Your task to perform on an android device: empty trash in the gmail app Image 0: 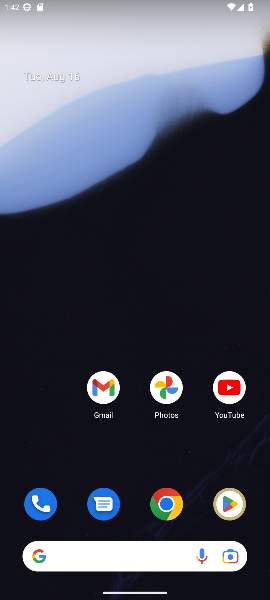
Step 0: click (102, 390)
Your task to perform on an android device: empty trash in the gmail app Image 1: 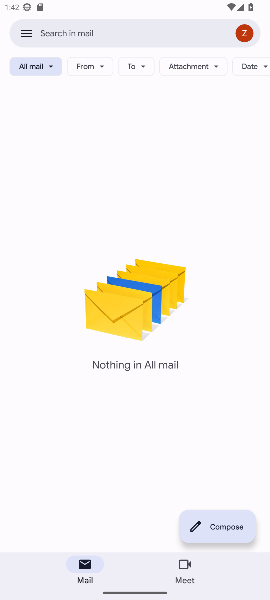
Step 1: click (24, 31)
Your task to perform on an android device: empty trash in the gmail app Image 2: 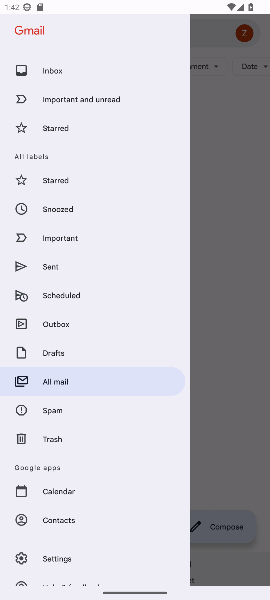
Step 2: click (53, 439)
Your task to perform on an android device: empty trash in the gmail app Image 3: 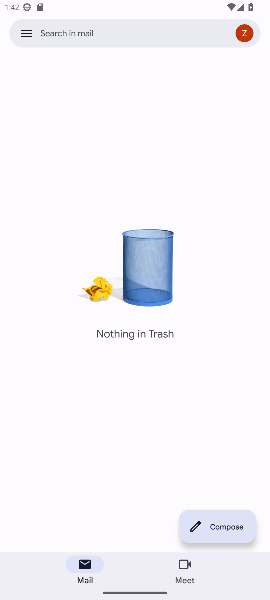
Step 3: task complete